Your task to perform on an android device: Open the calendar and show me this week's events Image 0: 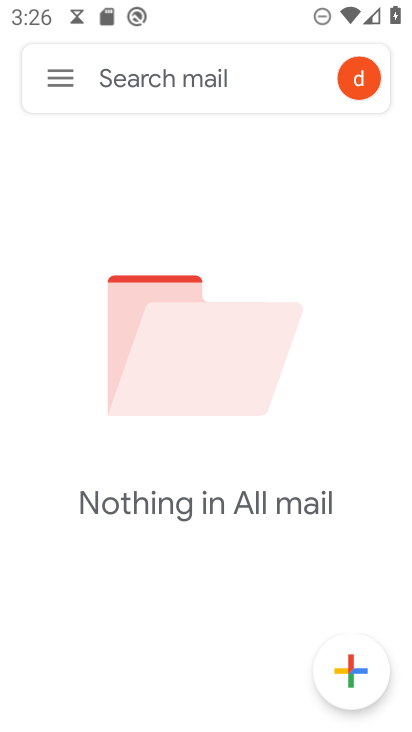
Step 0: press home button
Your task to perform on an android device: Open the calendar and show me this week's events Image 1: 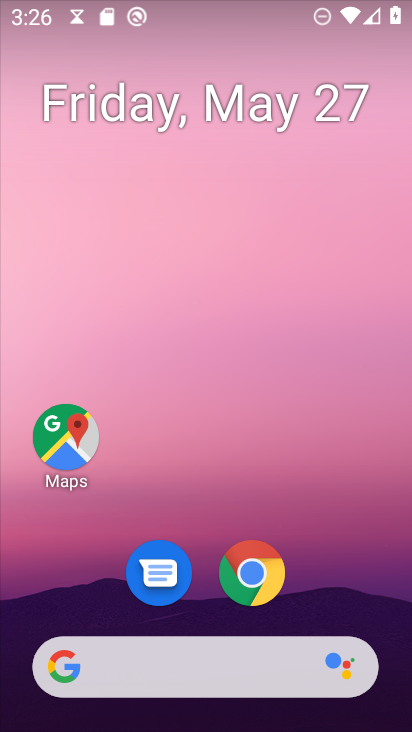
Step 1: drag from (304, 601) to (282, 48)
Your task to perform on an android device: Open the calendar and show me this week's events Image 2: 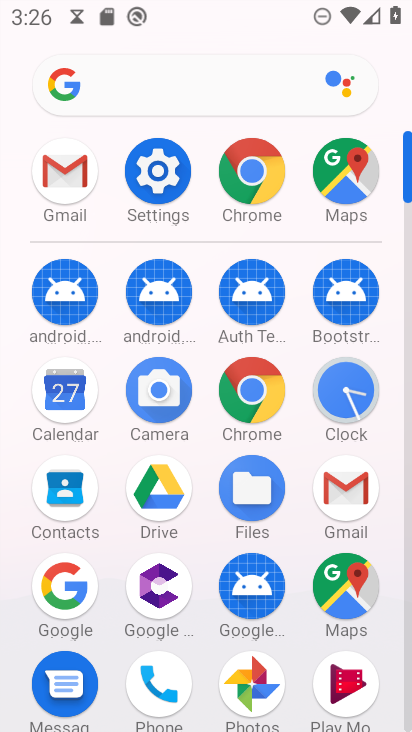
Step 2: click (62, 402)
Your task to perform on an android device: Open the calendar and show me this week's events Image 3: 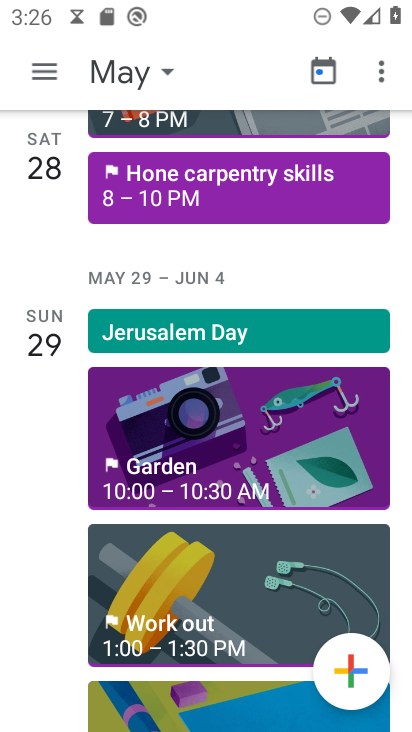
Step 3: click (132, 60)
Your task to perform on an android device: Open the calendar and show me this week's events Image 4: 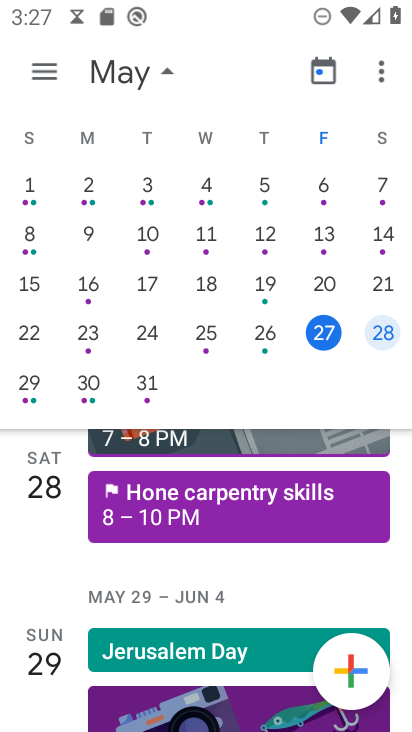
Step 4: click (321, 338)
Your task to perform on an android device: Open the calendar and show me this week's events Image 5: 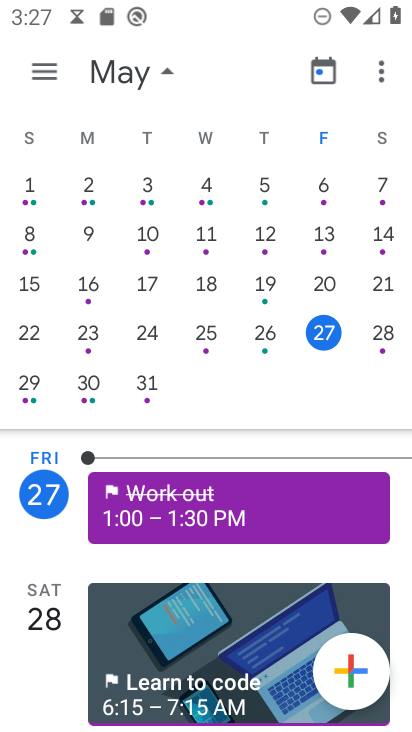
Step 5: task complete